Your task to perform on an android device: turn off javascript in the chrome app Image 0: 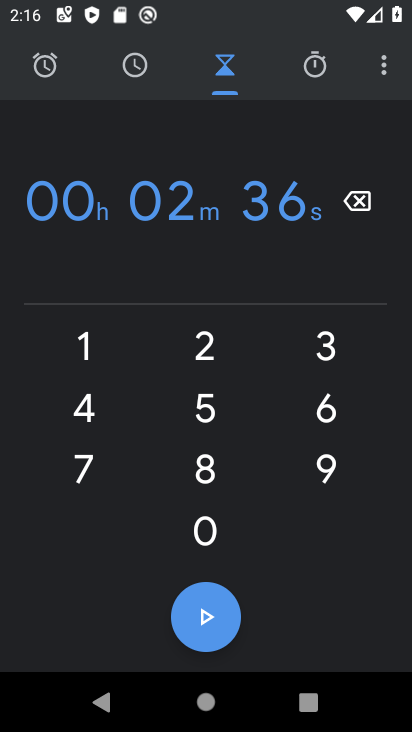
Step 0: press home button
Your task to perform on an android device: turn off javascript in the chrome app Image 1: 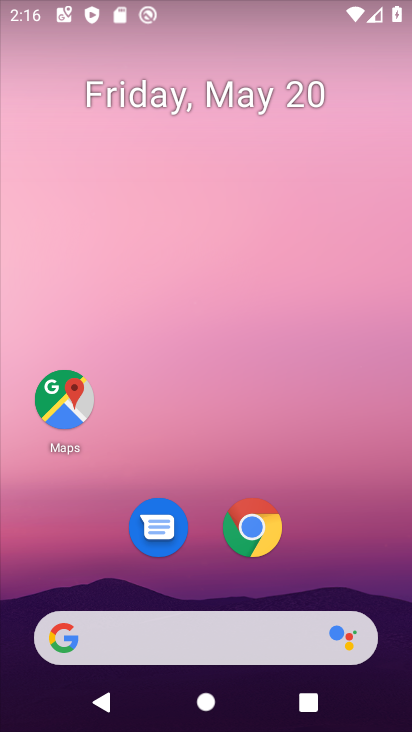
Step 1: click (245, 520)
Your task to perform on an android device: turn off javascript in the chrome app Image 2: 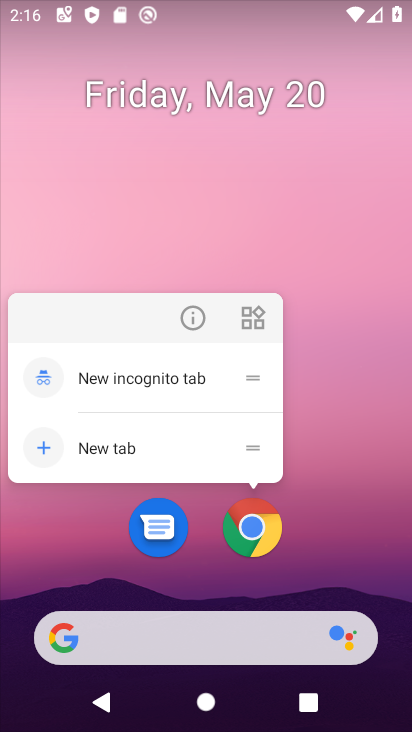
Step 2: click (245, 520)
Your task to perform on an android device: turn off javascript in the chrome app Image 3: 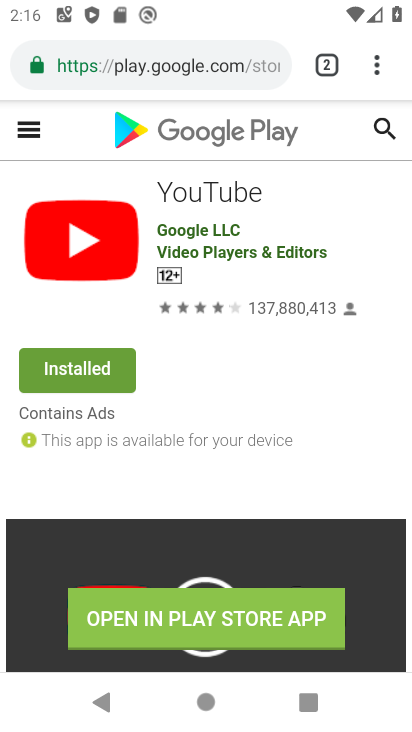
Step 3: click (377, 60)
Your task to perform on an android device: turn off javascript in the chrome app Image 4: 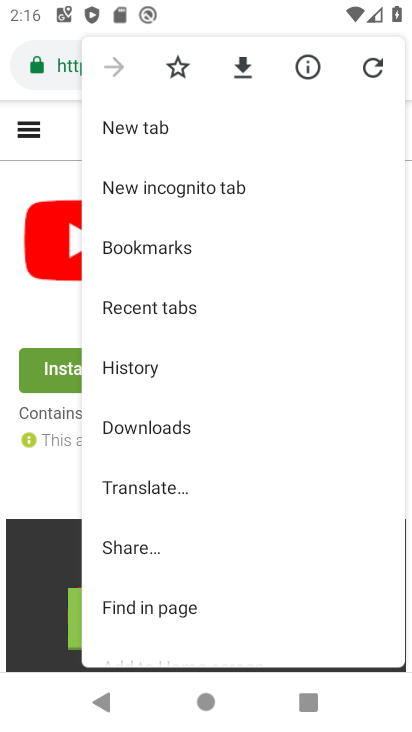
Step 4: drag from (213, 584) to (309, 149)
Your task to perform on an android device: turn off javascript in the chrome app Image 5: 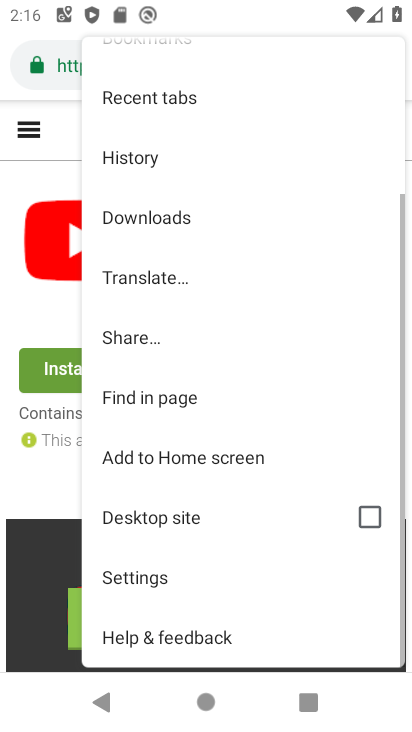
Step 5: click (149, 588)
Your task to perform on an android device: turn off javascript in the chrome app Image 6: 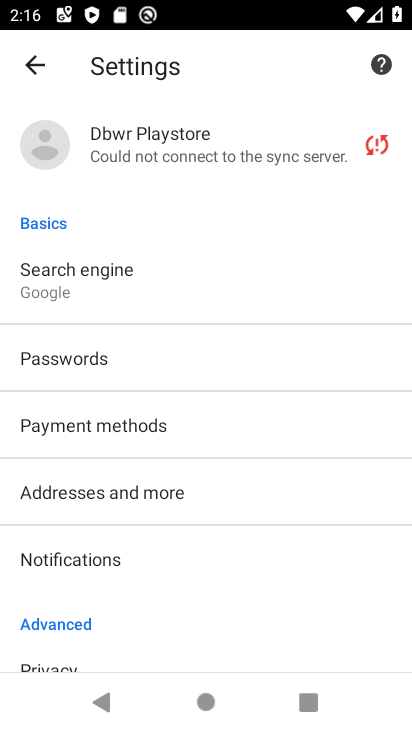
Step 6: drag from (189, 627) to (275, 153)
Your task to perform on an android device: turn off javascript in the chrome app Image 7: 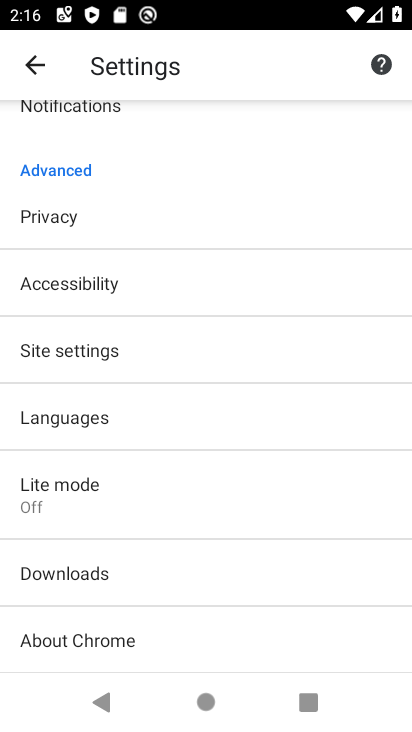
Step 7: click (139, 358)
Your task to perform on an android device: turn off javascript in the chrome app Image 8: 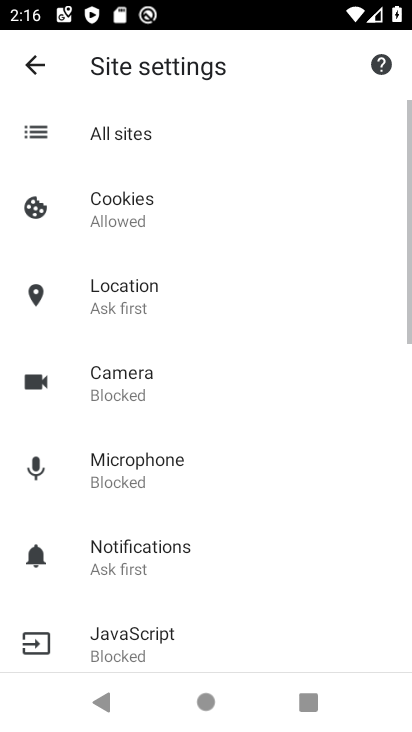
Step 8: drag from (224, 608) to (287, 211)
Your task to perform on an android device: turn off javascript in the chrome app Image 9: 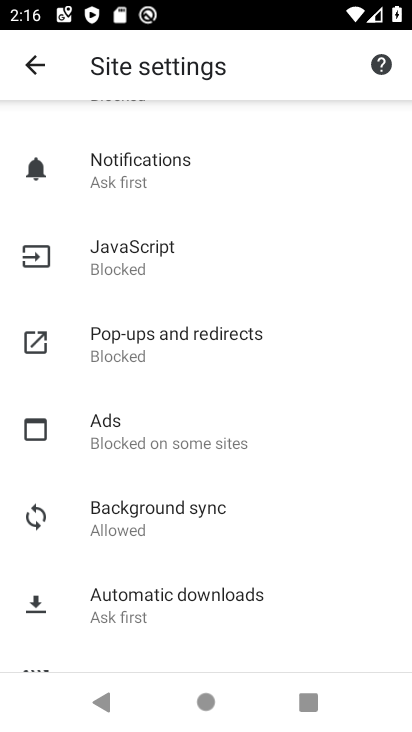
Step 9: click (178, 269)
Your task to perform on an android device: turn off javascript in the chrome app Image 10: 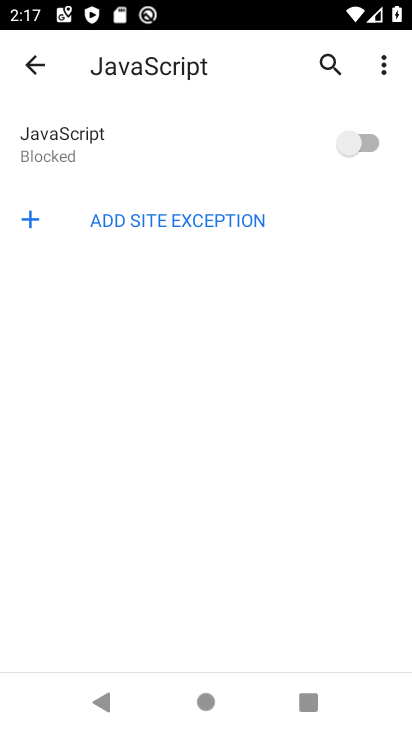
Step 10: task complete